Your task to perform on an android device: Go to Yahoo.com Image 0: 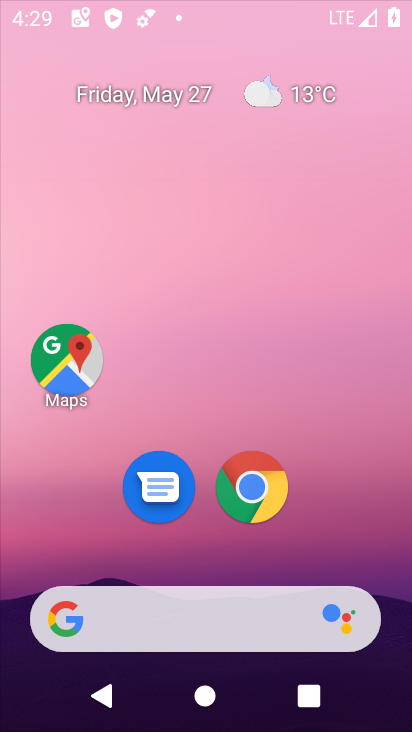
Step 0: click (254, 99)
Your task to perform on an android device: Go to Yahoo.com Image 1: 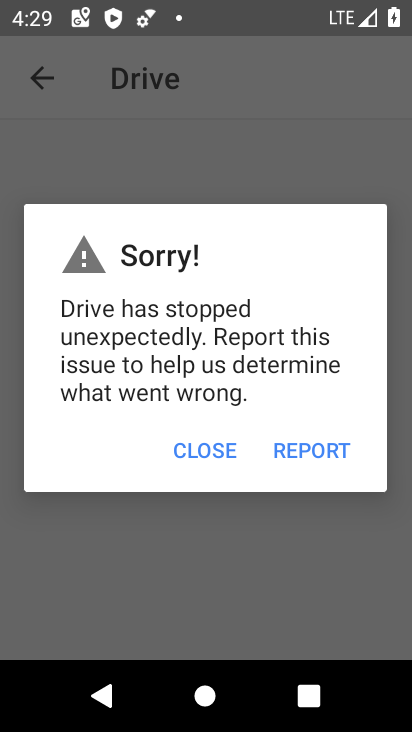
Step 1: press home button
Your task to perform on an android device: Go to Yahoo.com Image 2: 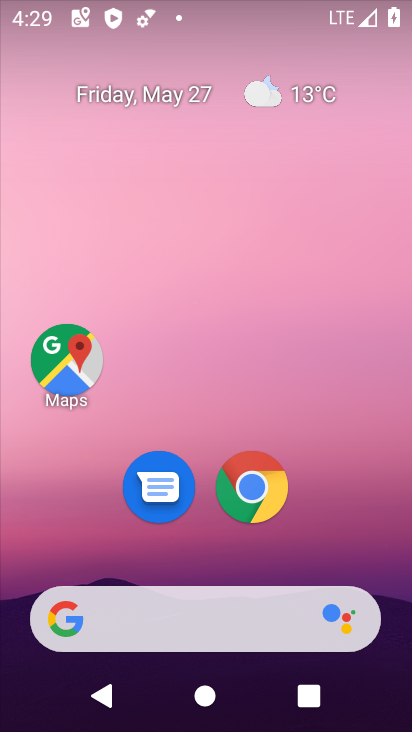
Step 2: click (246, 484)
Your task to perform on an android device: Go to Yahoo.com Image 3: 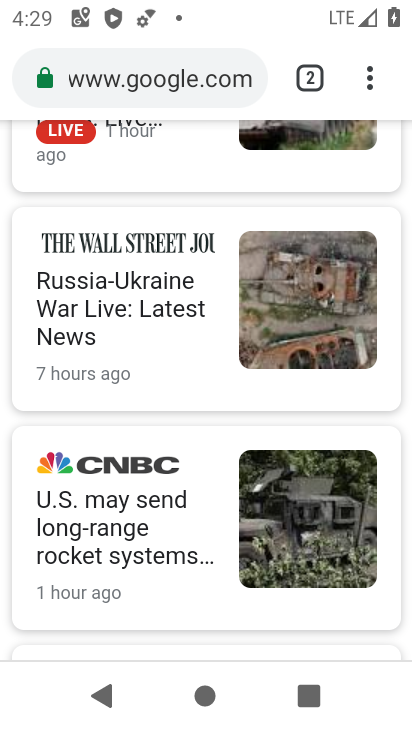
Step 3: click (166, 84)
Your task to perform on an android device: Go to Yahoo.com Image 4: 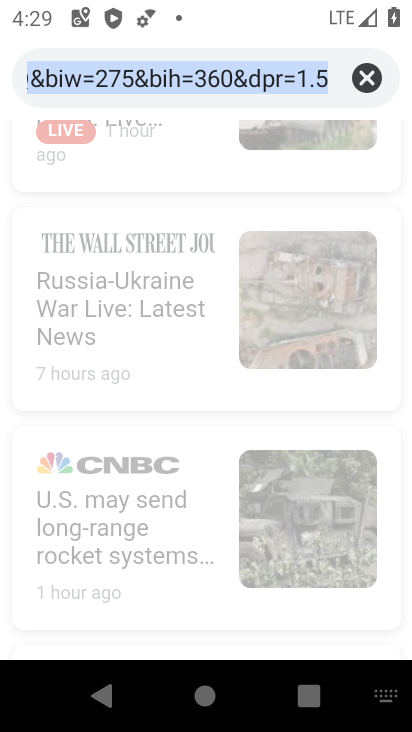
Step 4: click (358, 78)
Your task to perform on an android device: Go to Yahoo.com Image 5: 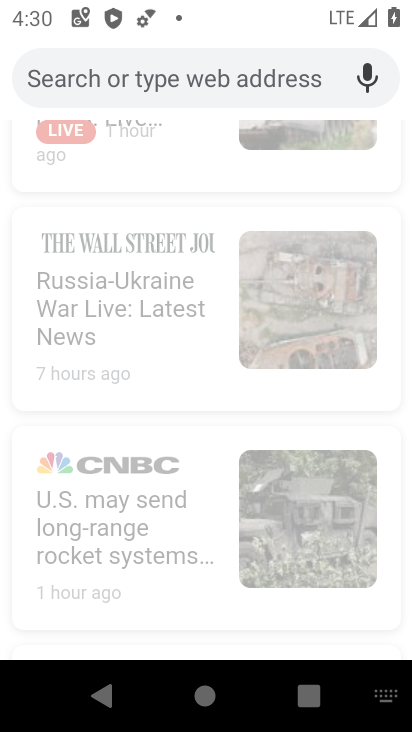
Step 5: type "yahoo.com"
Your task to perform on an android device: Go to Yahoo.com Image 6: 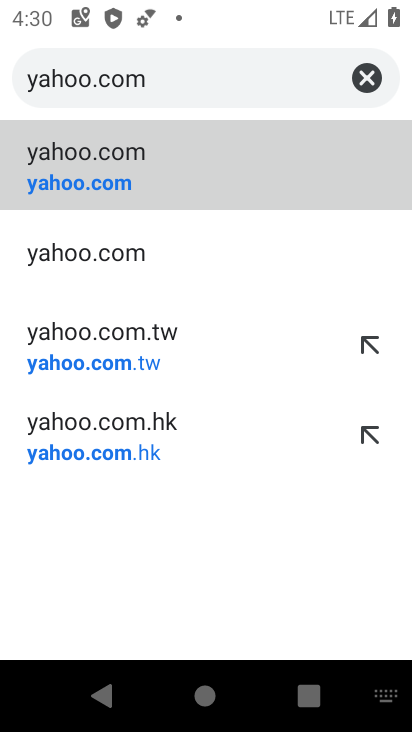
Step 6: click (111, 173)
Your task to perform on an android device: Go to Yahoo.com Image 7: 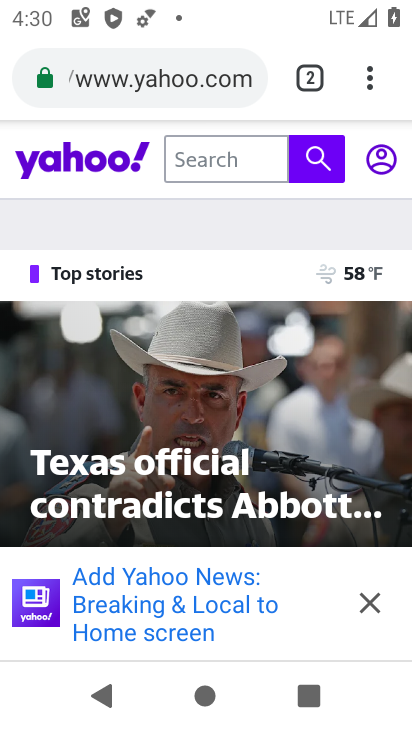
Step 7: task complete